Your task to perform on an android device: Open CNN.com Image 0: 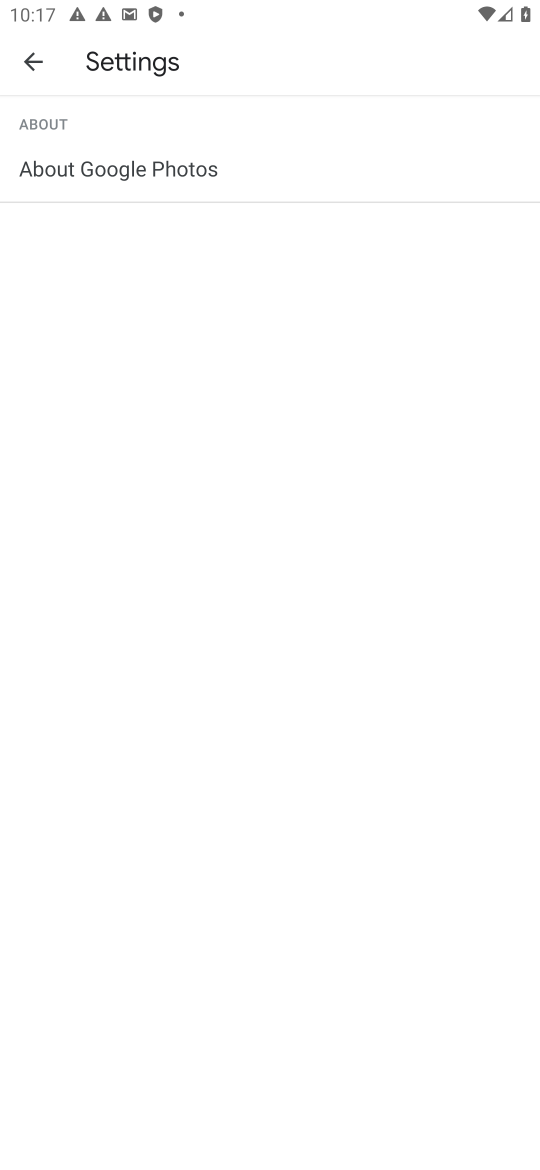
Step 0: press home button
Your task to perform on an android device: Open CNN.com Image 1: 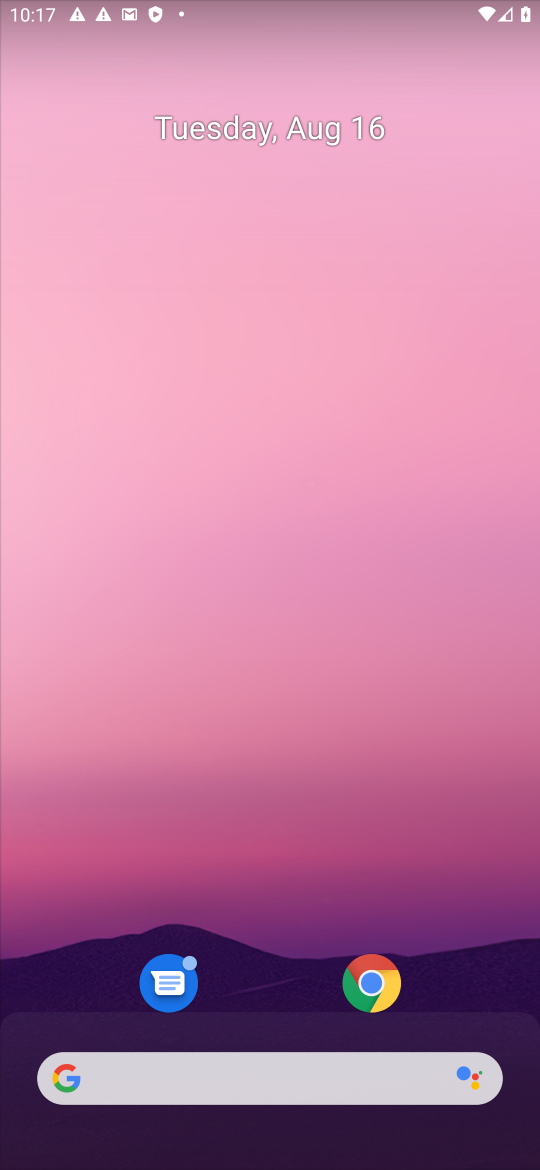
Step 1: drag from (287, 1018) to (308, 492)
Your task to perform on an android device: Open CNN.com Image 2: 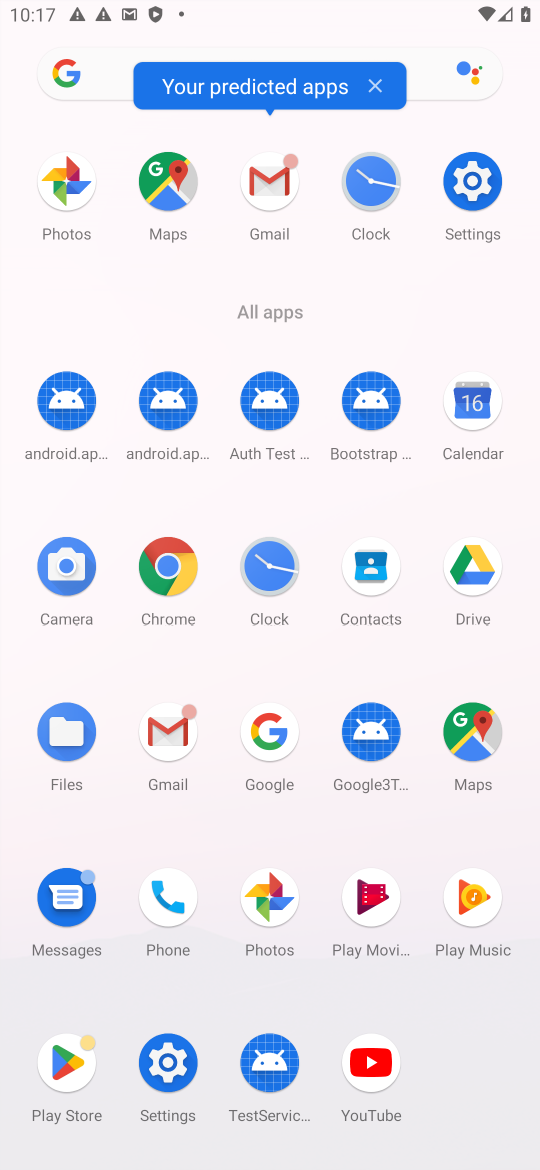
Step 2: click (183, 586)
Your task to perform on an android device: Open CNN.com Image 3: 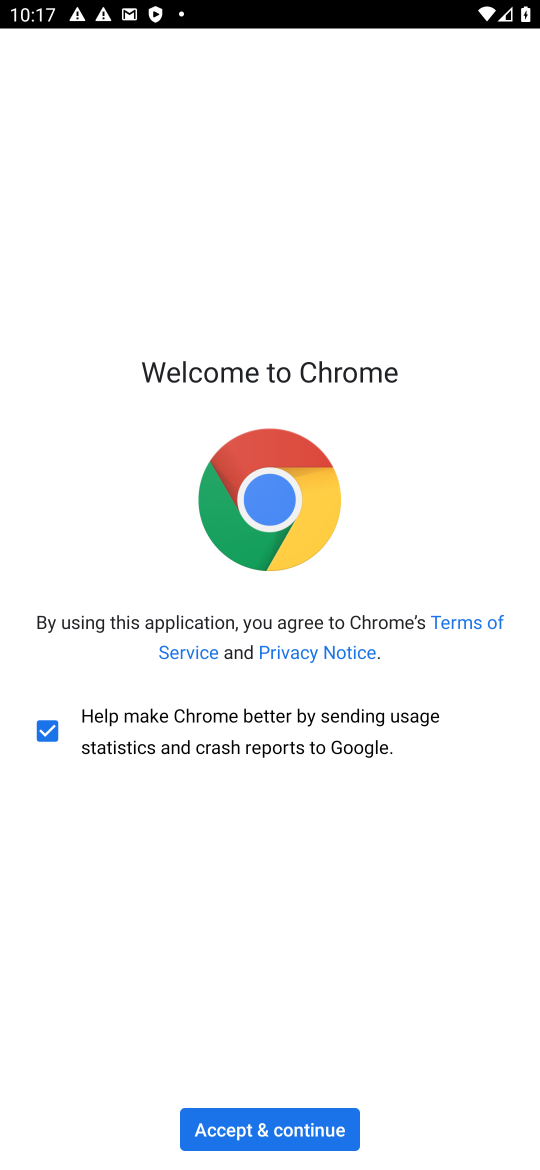
Step 3: click (234, 1132)
Your task to perform on an android device: Open CNN.com Image 4: 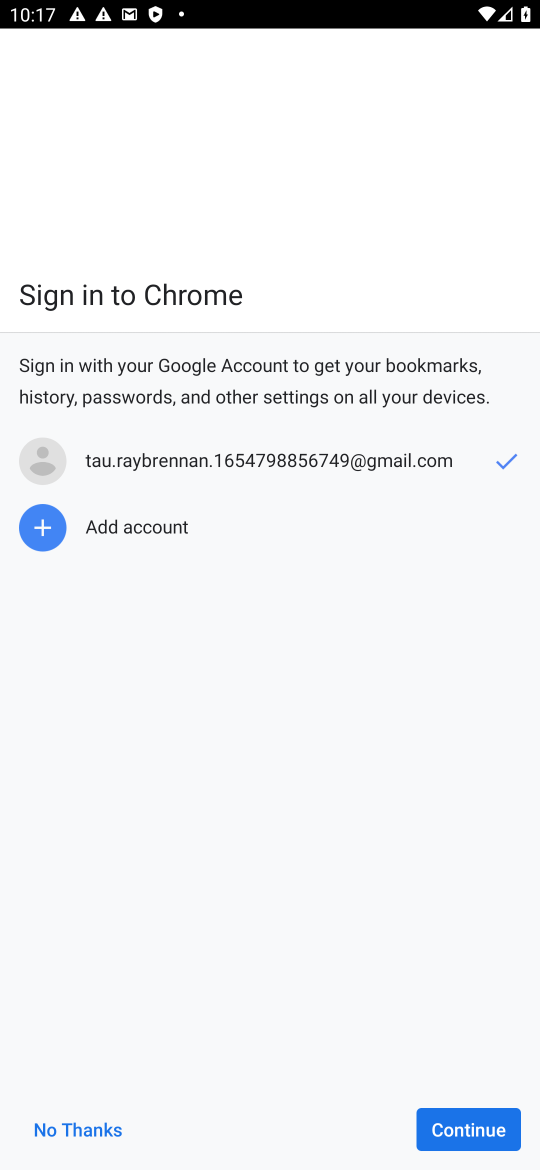
Step 4: click (469, 1134)
Your task to perform on an android device: Open CNN.com Image 5: 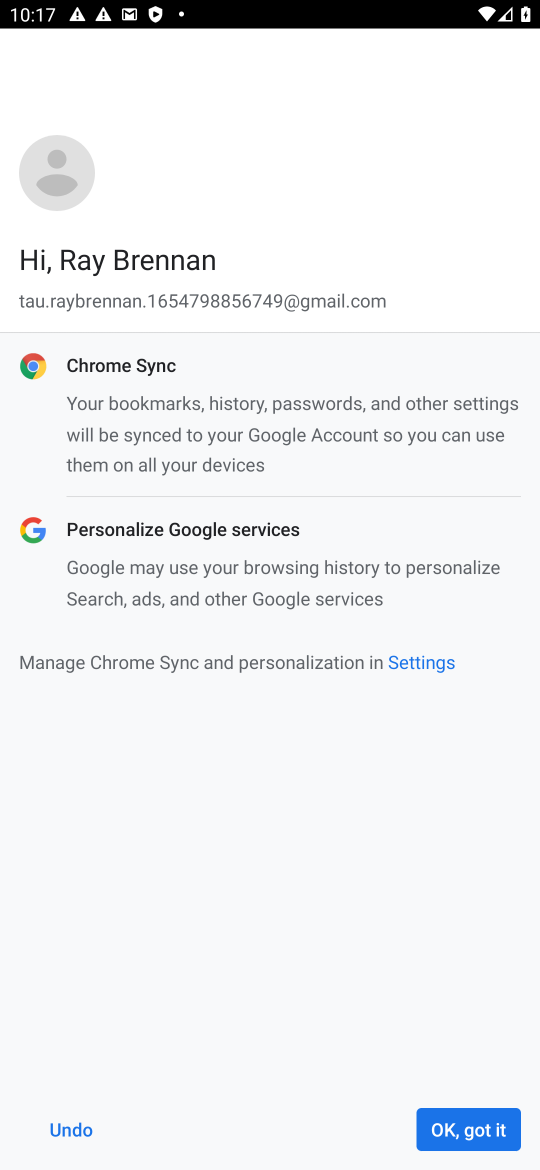
Step 5: click (469, 1134)
Your task to perform on an android device: Open CNN.com Image 6: 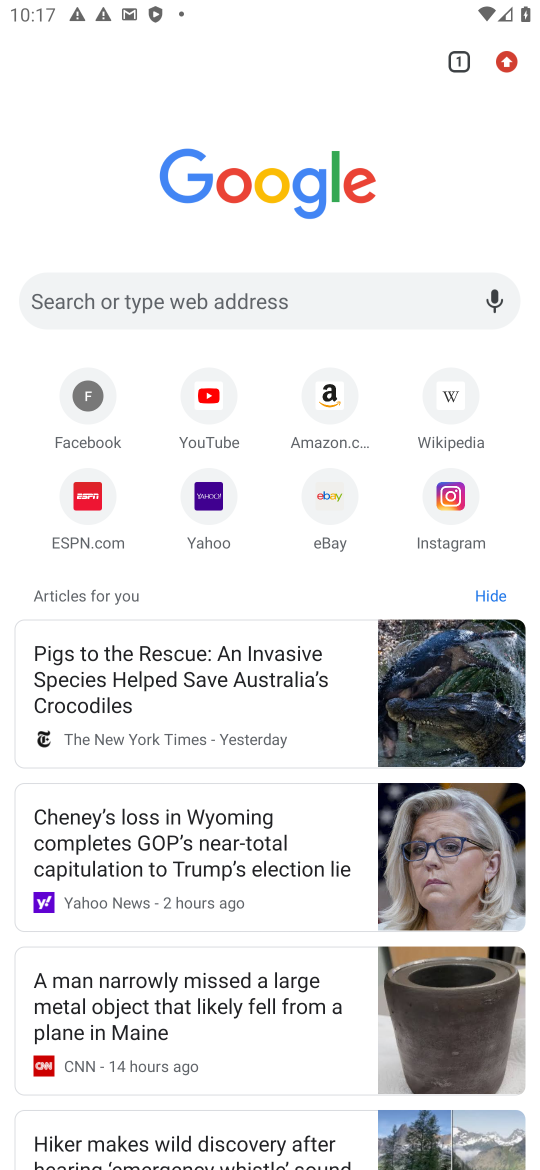
Step 6: click (217, 306)
Your task to perform on an android device: Open CNN.com Image 7: 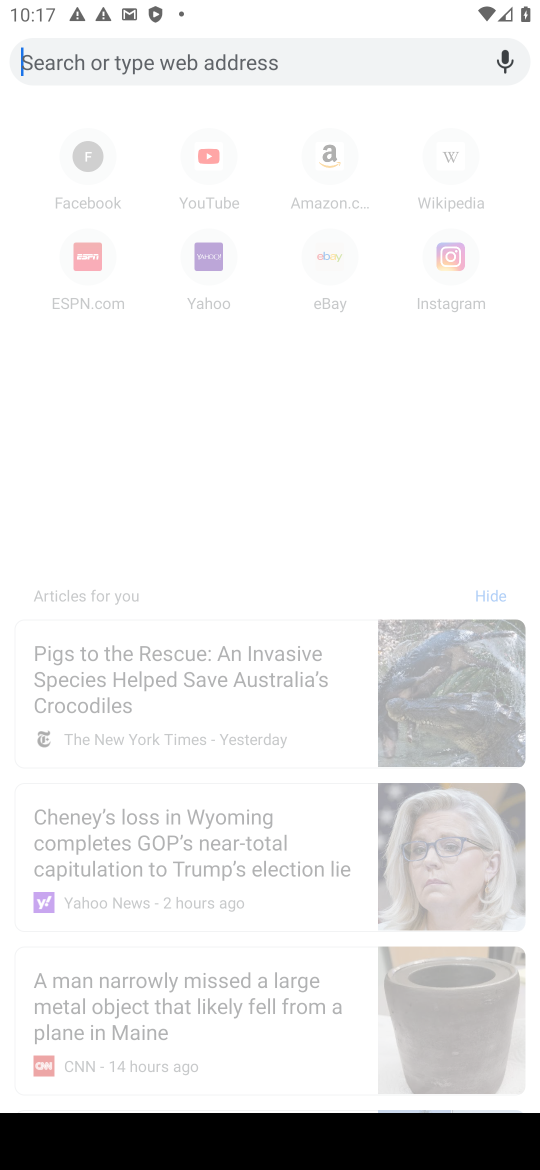
Step 7: type "cnn.com"
Your task to perform on an android device: Open CNN.com Image 8: 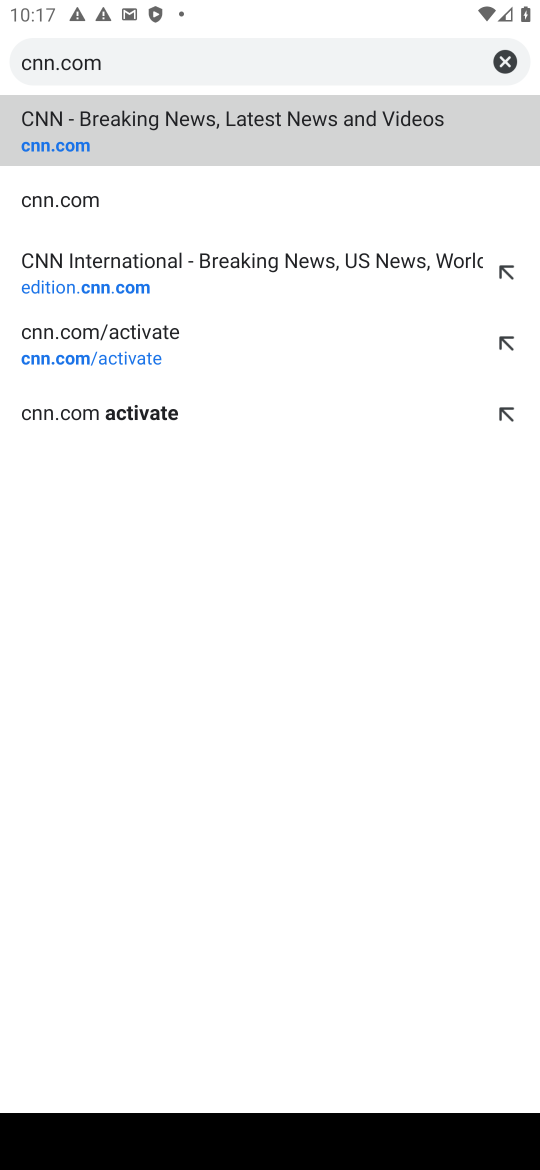
Step 8: click (287, 147)
Your task to perform on an android device: Open CNN.com Image 9: 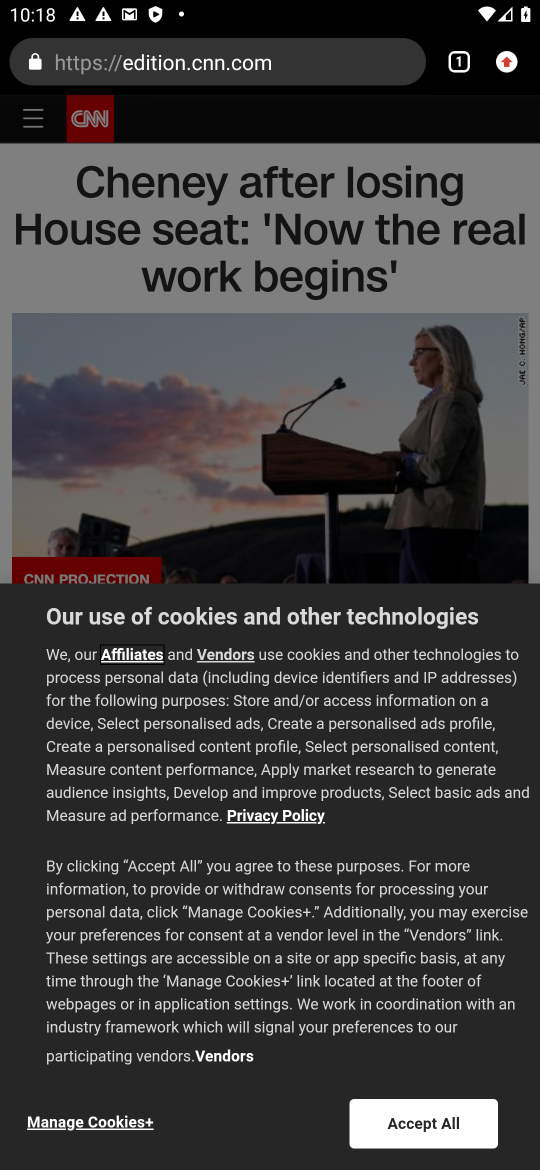
Step 9: task complete